Your task to perform on an android device: Clear the shopping cart on amazon.com. Add "lg ultragear" to the cart on amazon.com, then select checkout. Image 0: 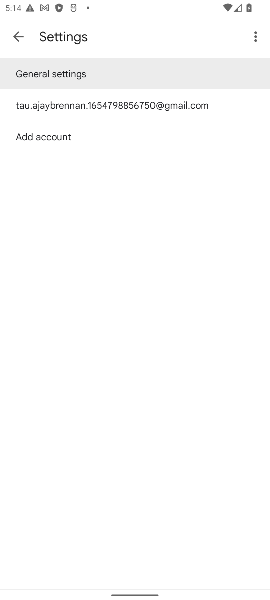
Step 0: press home button
Your task to perform on an android device: Clear the shopping cart on amazon.com. Add "lg ultragear" to the cart on amazon.com, then select checkout. Image 1: 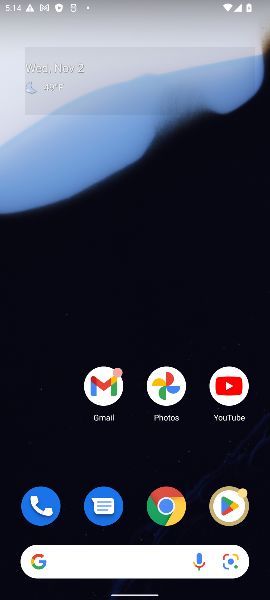
Step 1: click (176, 521)
Your task to perform on an android device: Clear the shopping cart on amazon.com. Add "lg ultragear" to the cart on amazon.com, then select checkout. Image 2: 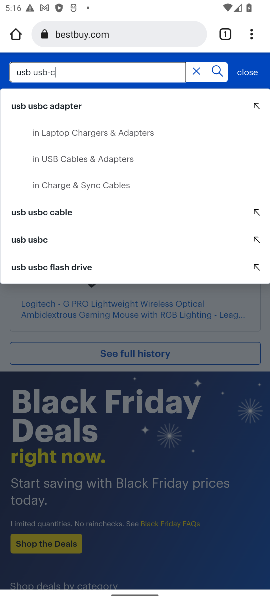
Step 2: click (144, 31)
Your task to perform on an android device: Clear the shopping cart on amazon.com. Add "lg ultragear" to the cart on amazon.com, then select checkout. Image 3: 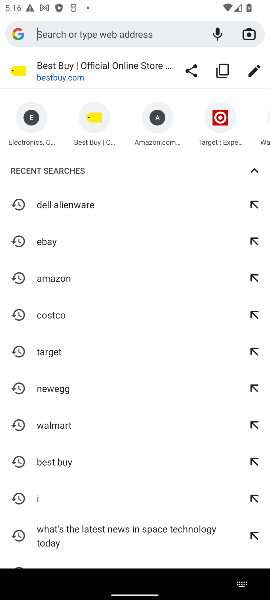
Step 3: type "amazon.com"
Your task to perform on an android device: Clear the shopping cart on amazon.com. Add "lg ultragear" to the cart on amazon.com, then select checkout. Image 4: 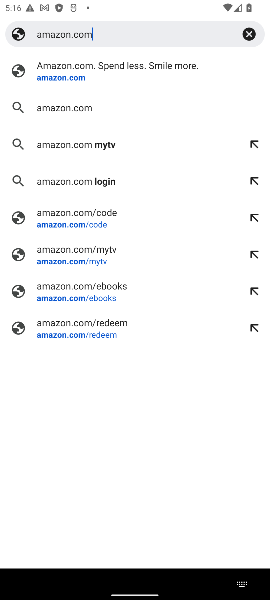
Step 4: click (105, 72)
Your task to perform on an android device: Clear the shopping cart on amazon.com. Add "lg ultragear" to the cart on amazon.com, then select checkout. Image 5: 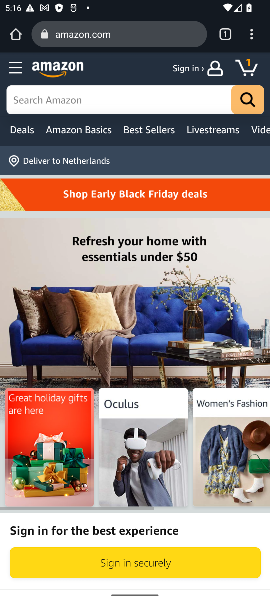
Step 5: click (110, 106)
Your task to perform on an android device: Clear the shopping cart on amazon.com. Add "lg ultragear" to the cart on amazon.com, then select checkout. Image 6: 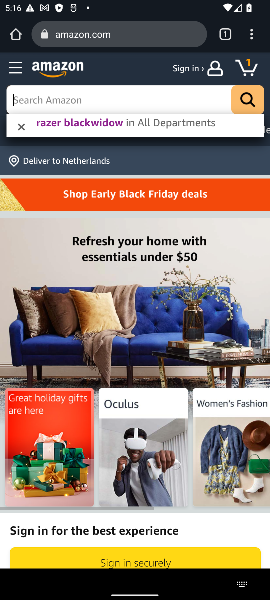
Step 6: type "lg ultrgear"
Your task to perform on an android device: Clear the shopping cart on amazon.com. Add "lg ultragear" to the cart on amazon.com, then select checkout. Image 7: 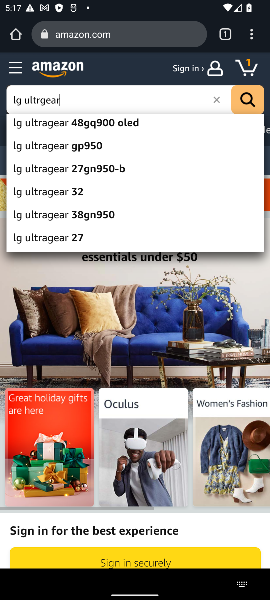
Step 7: press enter
Your task to perform on an android device: Clear the shopping cart on amazon.com. Add "lg ultragear" to the cart on amazon.com, then select checkout. Image 8: 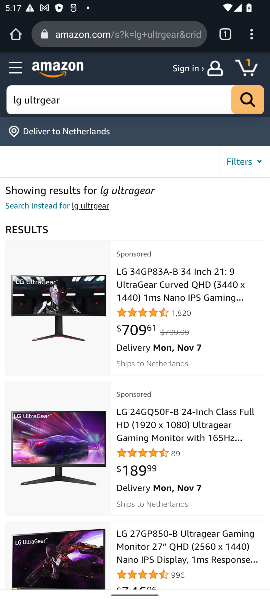
Step 8: task complete